Your task to perform on an android device: What's on the menu at McDonalds? Image 0: 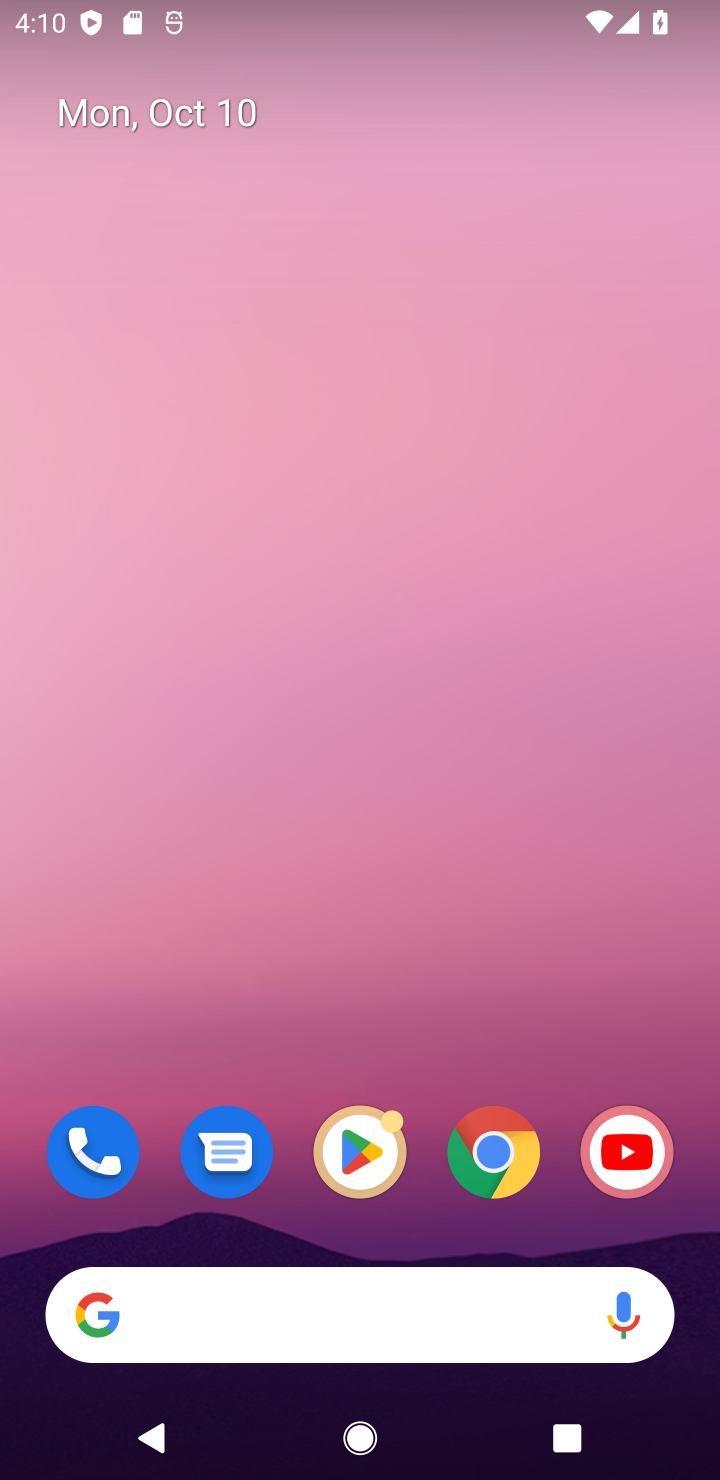
Step 0: drag from (334, 1266) to (391, 169)
Your task to perform on an android device: What's on the menu at McDonalds? Image 1: 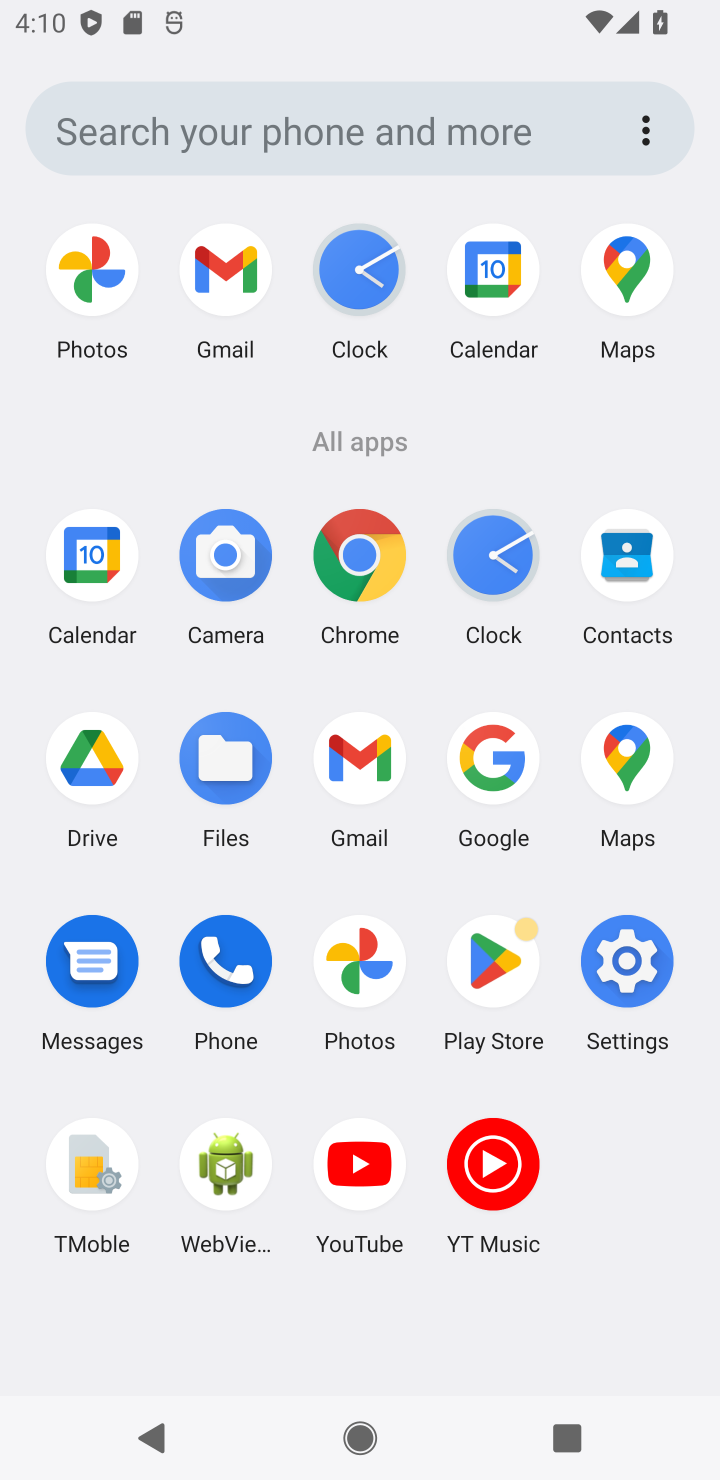
Step 1: click (358, 560)
Your task to perform on an android device: What's on the menu at McDonalds? Image 2: 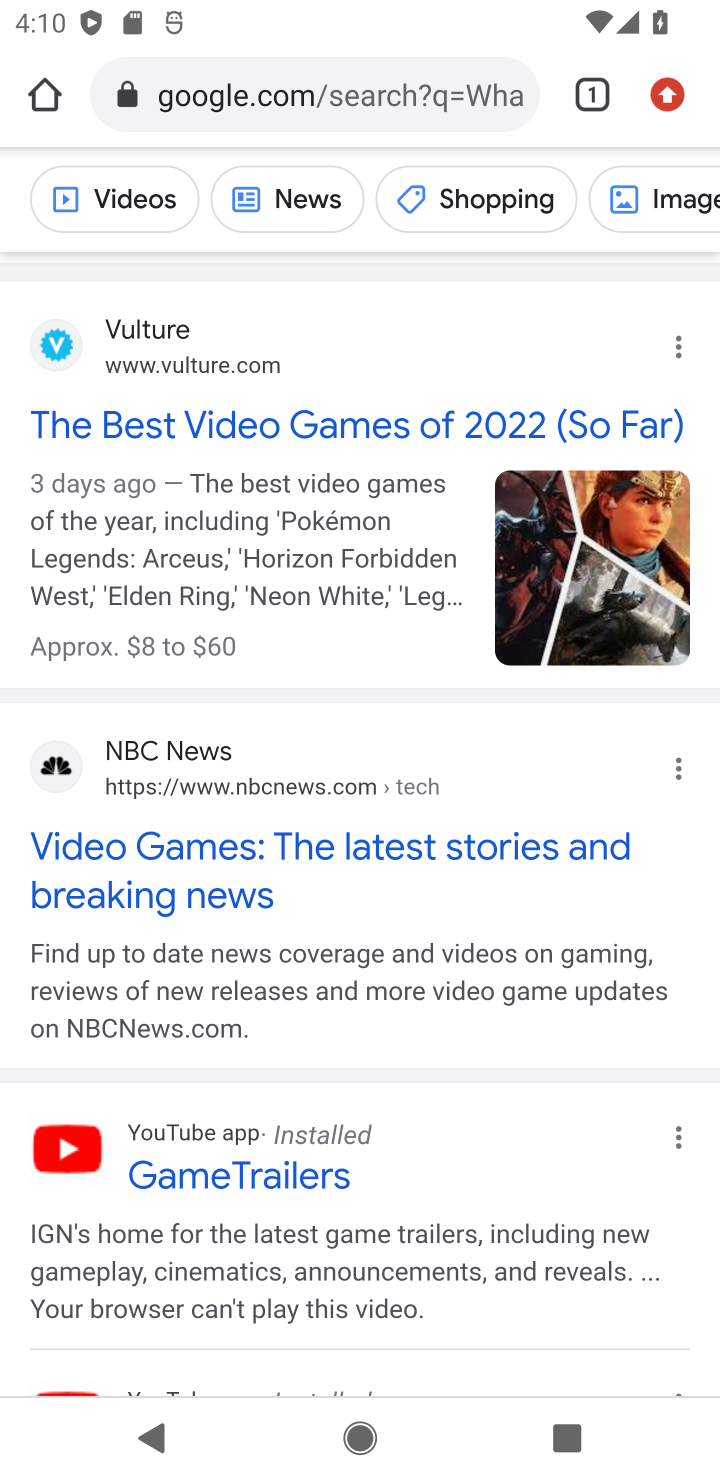
Step 2: click (470, 102)
Your task to perform on an android device: What's on the menu at McDonalds? Image 3: 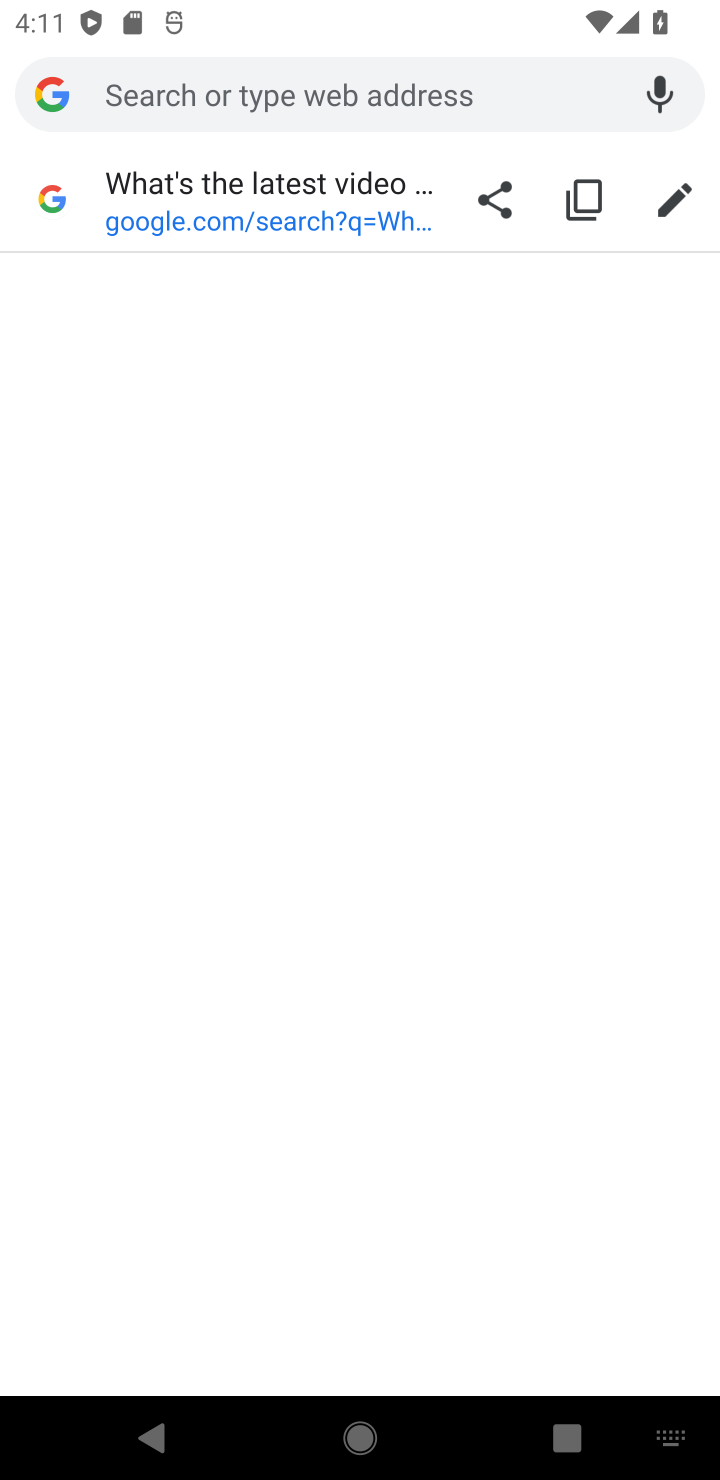
Step 3: type "What's on the menu at McDonalds"
Your task to perform on an android device: What's on the menu at McDonalds? Image 4: 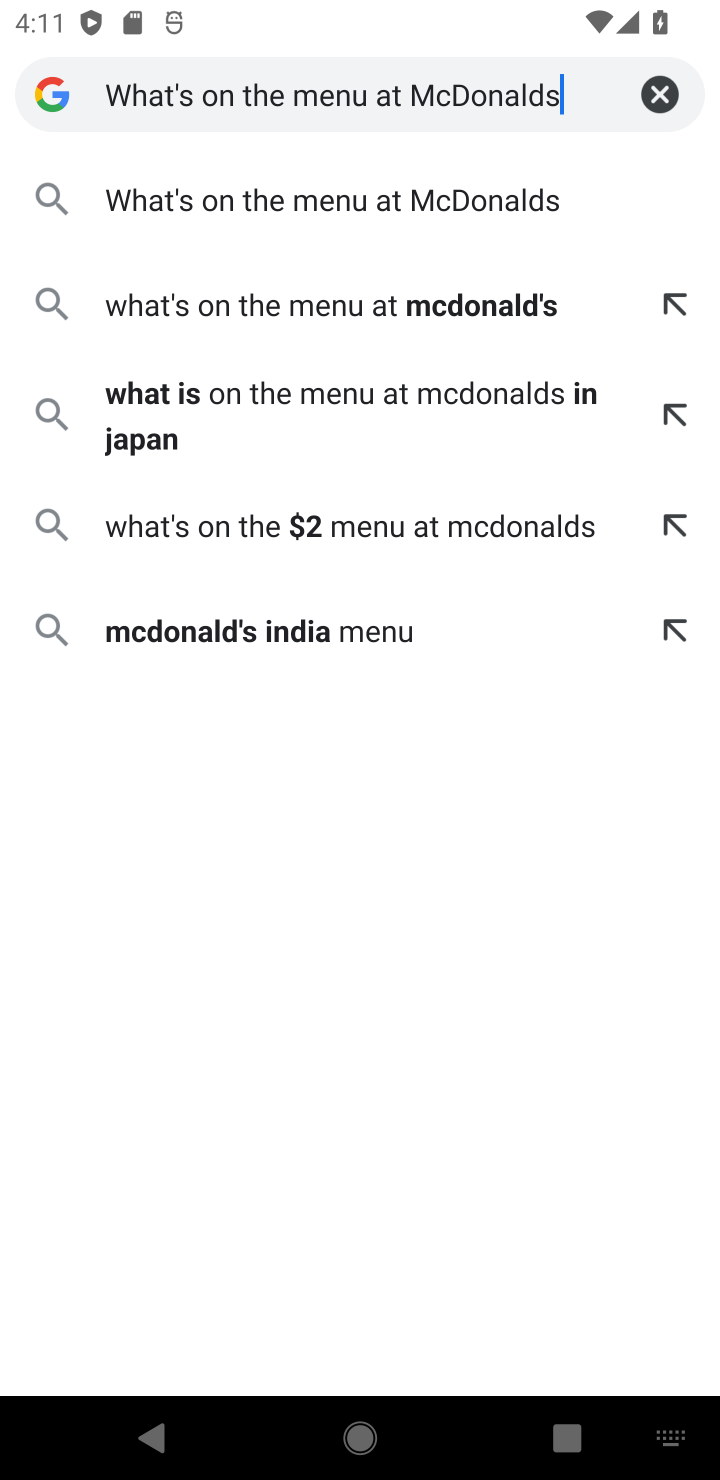
Step 4: click (422, 190)
Your task to perform on an android device: What's on the menu at McDonalds? Image 5: 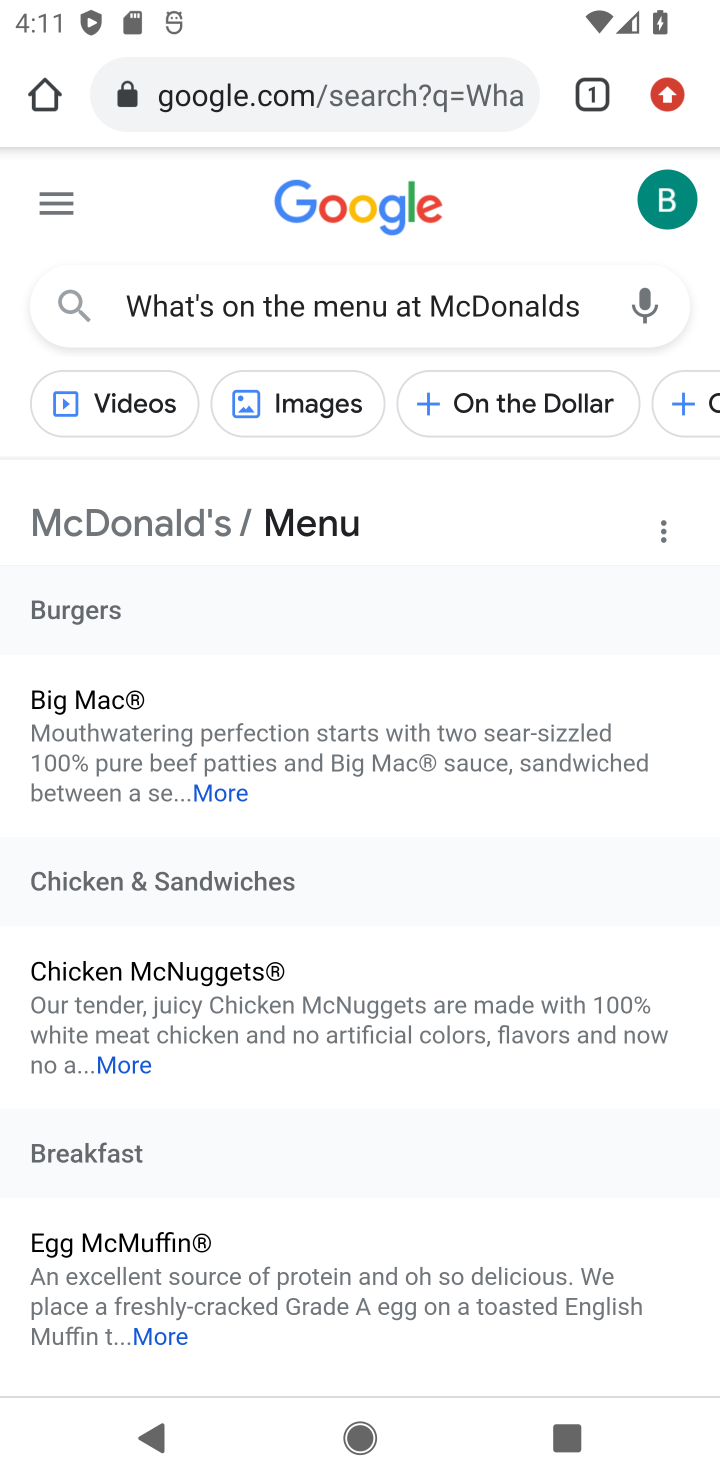
Step 5: task complete